Your task to perform on an android device: delete location history Image 0: 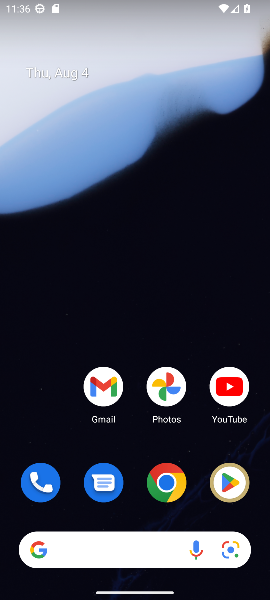
Step 0: drag from (140, 440) to (153, 147)
Your task to perform on an android device: delete location history Image 1: 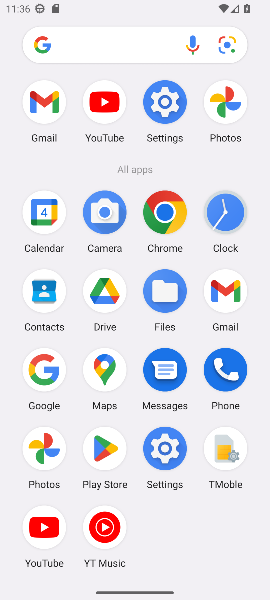
Step 1: click (102, 391)
Your task to perform on an android device: delete location history Image 2: 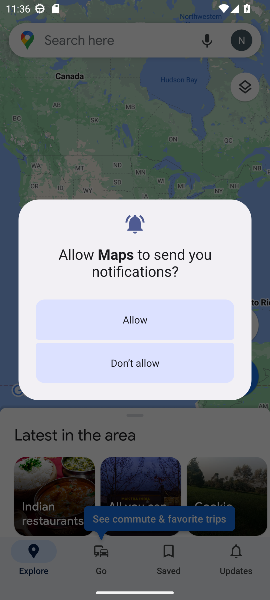
Step 2: click (120, 325)
Your task to perform on an android device: delete location history Image 3: 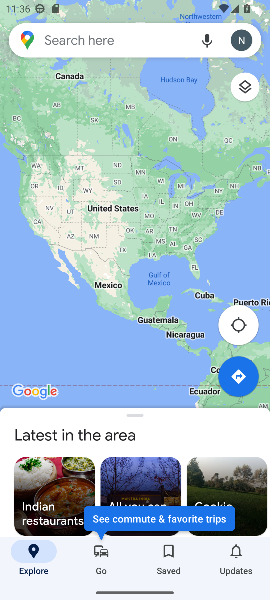
Step 3: click (30, 37)
Your task to perform on an android device: delete location history Image 4: 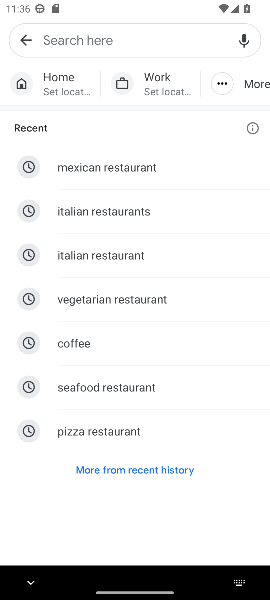
Step 4: click (30, 37)
Your task to perform on an android device: delete location history Image 5: 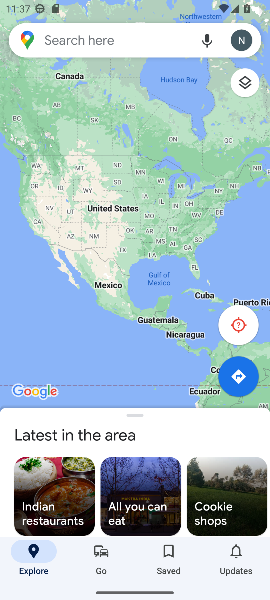
Step 5: press back button
Your task to perform on an android device: delete location history Image 6: 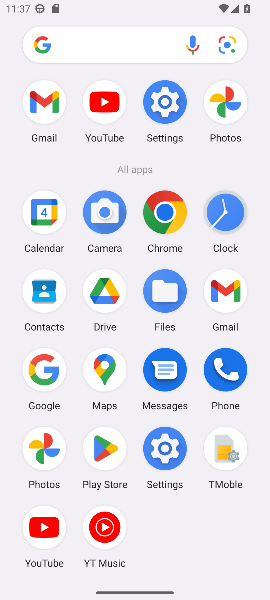
Step 6: click (115, 384)
Your task to perform on an android device: delete location history Image 7: 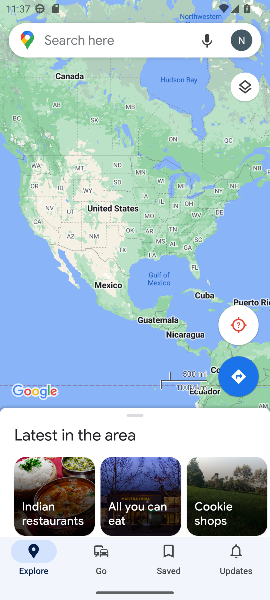
Step 7: click (253, 41)
Your task to perform on an android device: delete location history Image 8: 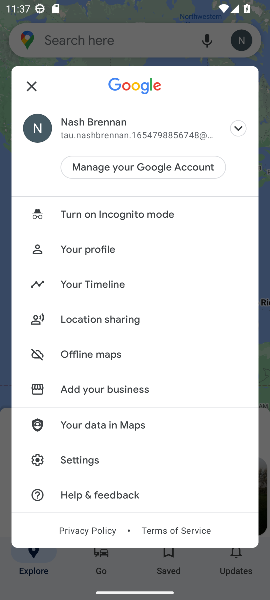
Step 8: click (85, 290)
Your task to perform on an android device: delete location history Image 9: 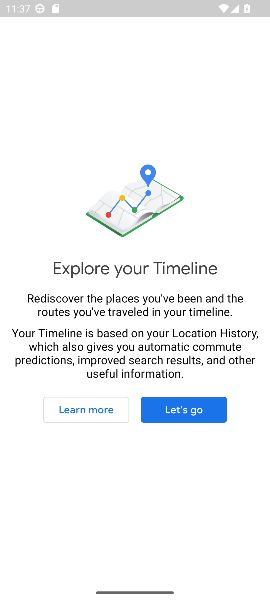
Step 9: click (153, 408)
Your task to perform on an android device: delete location history Image 10: 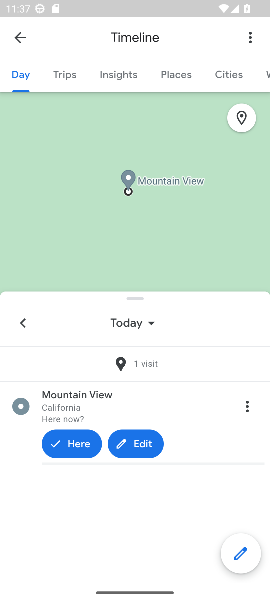
Step 10: click (246, 41)
Your task to perform on an android device: delete location history Image 11: 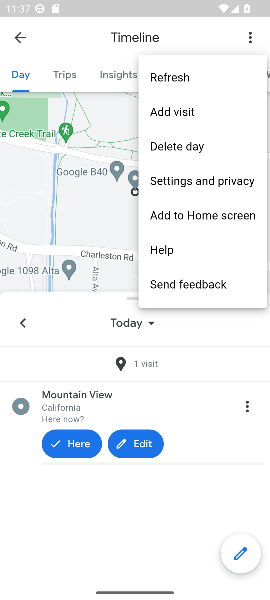
Step 11: click (201, 172)
Your task to perform on an android device: delete location history Image 12: 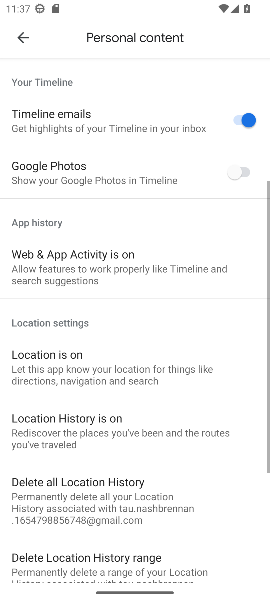
Step 12: drag from (121, 493) to (153, 329)
Your task to perform on an android device: delete location history Image 13: 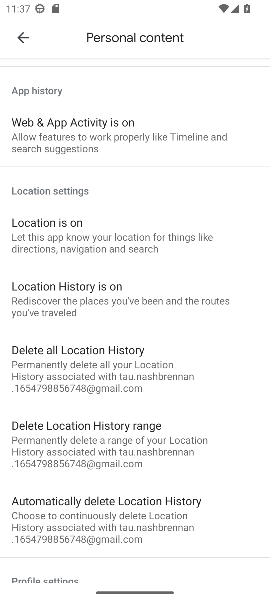
Step 13: click (141, 354)
Your task to perform on an android device: delete location history Image 14: 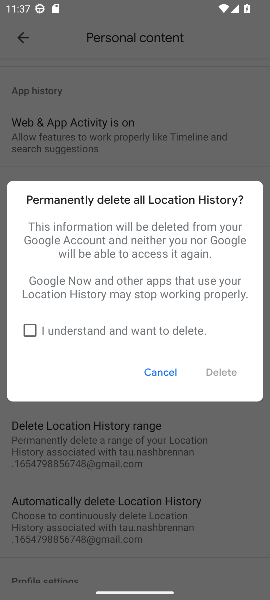
Step 14: click (128, 343)
Your task to perform on an android device: delete location history Image 15: 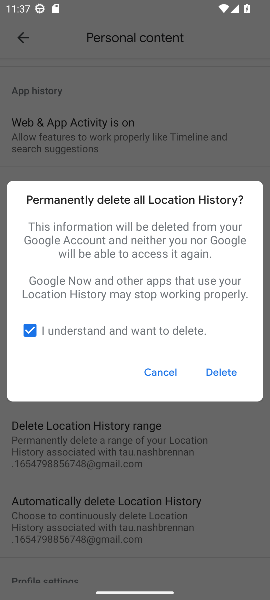
Step 15: click (222, 386)
Your task to perform on an android device: delete location history Image 16: 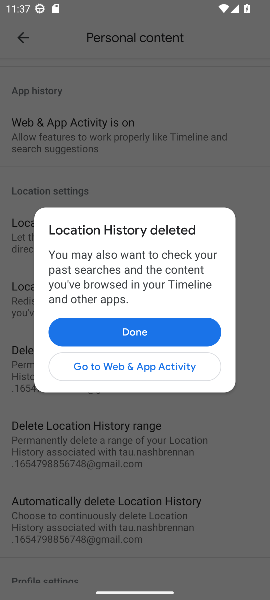
Step 16: click (179, 319)
Your task to perform on an android device: delete location history Image 17: 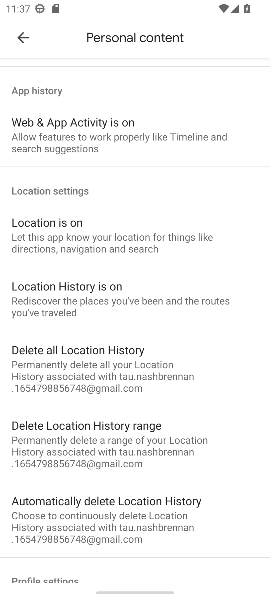
Step 17: task complete